Your task to perform on an android device: Open Reddit.com Image 0: 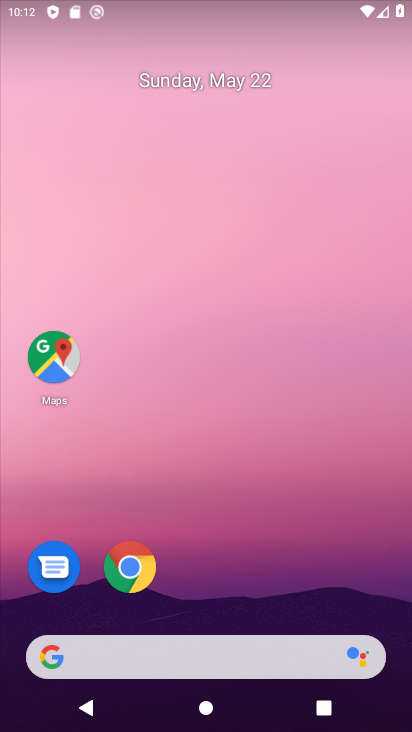
Step 0: click (130, 566)
Your task to perform on an android device: Open Reddit.com Image 1: 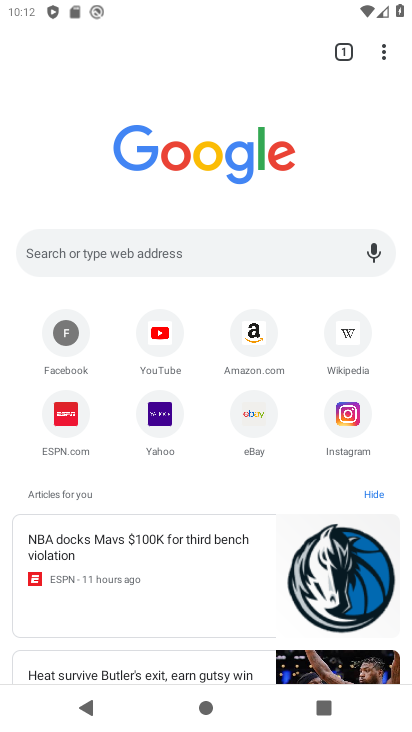
Step 1: click (165, 247)
Your task to perform on an android device: Open Reddit.com Image 2: 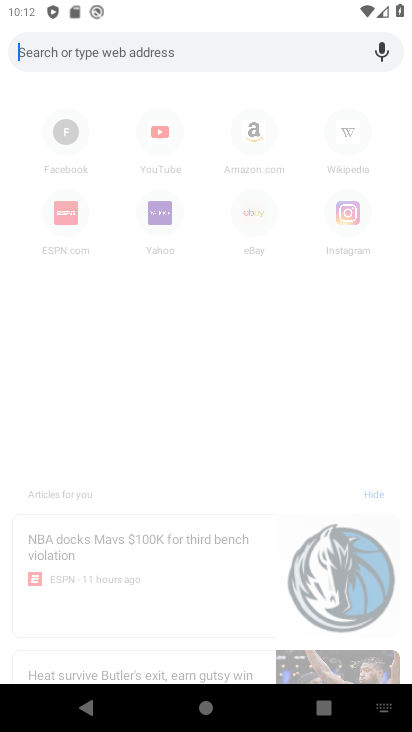
Step 2: type "reddit.com"
Your task to perform on an android device: Open Reddit.com Image 3: 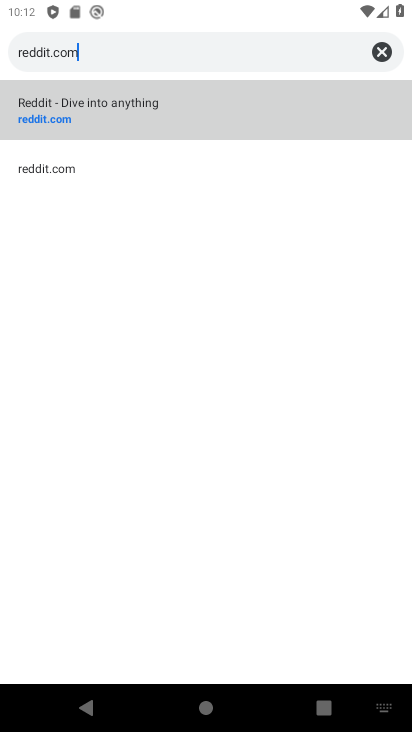
Step 3: click (61, 102)
Your task to perform on an android device: Open Reddit.com Image 4: 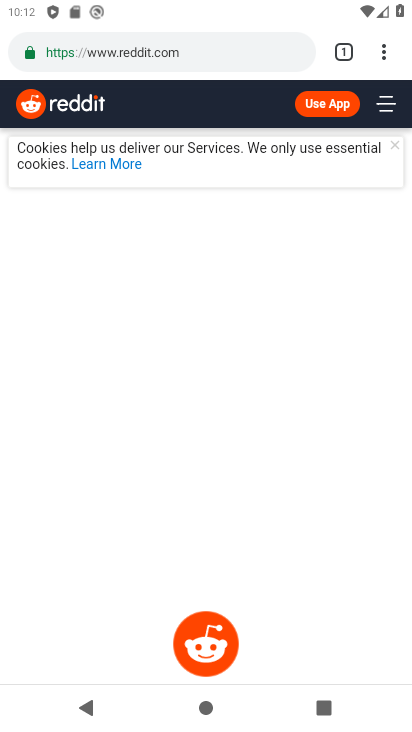
Step 4: task complete